Your task to perform on an android device: Open the calendar app, open the side menu, and click the "Day" option Image 0: 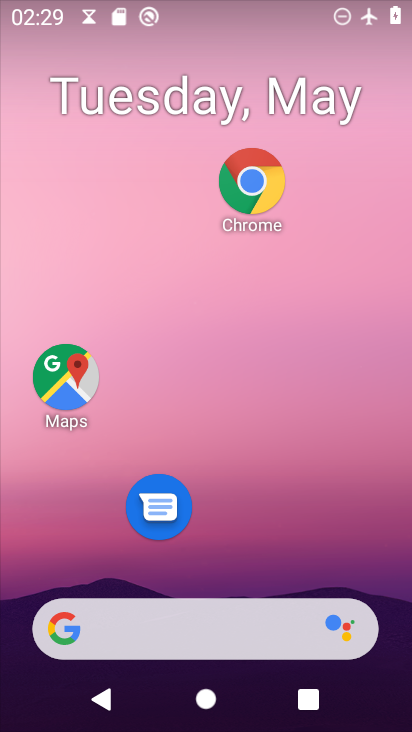
Step 0: drag from (290, 496) to (323, 207)
Your task to perform on an android device: Open the calendar app, open the side menu, and click the "Day" option Image 1: 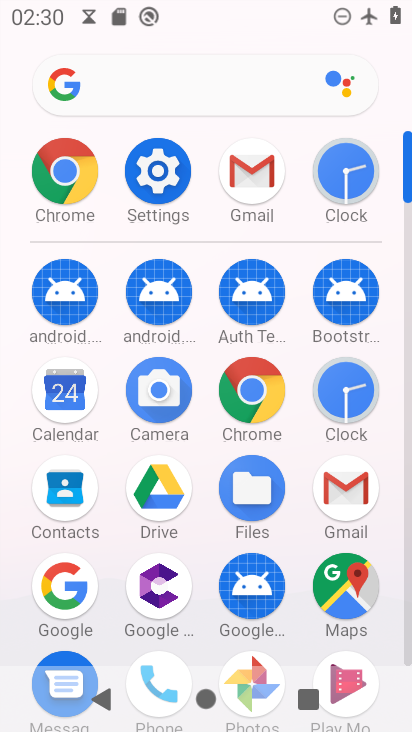
Step 1: click (76, 387)
Your task to perform on an android device: Open the calendar app, open the side menu, and click the "Day" option Image 2: 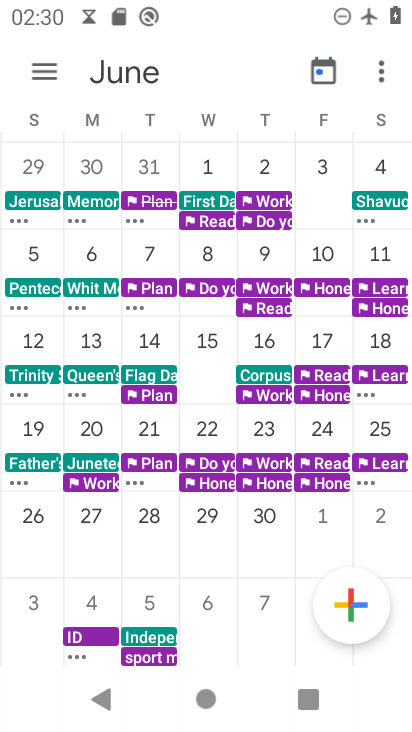
Step 2: click (43, 62)
Your task to perform on an android device: Open the calendar app, open the side menu, and click the "Day" option Image 3: 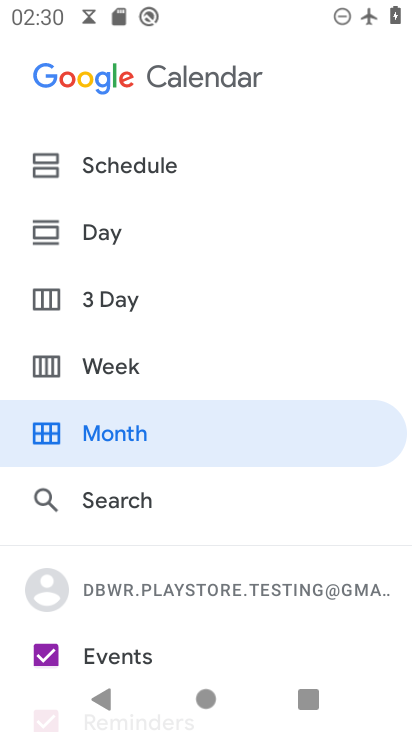
Step 3: click (126, 225)
Your task to perform on an android device: Open the calendar app, open the side menu, and click the "Day" option Image 4: 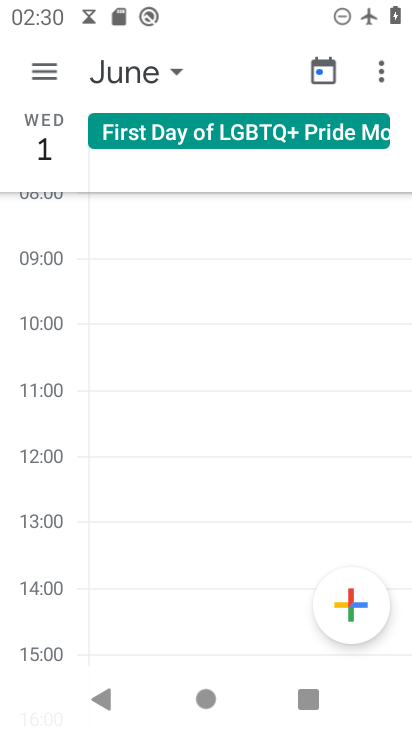
Step 4: task complete